Your task to perform on an android device: check the backup settings in the google photos Image 0: 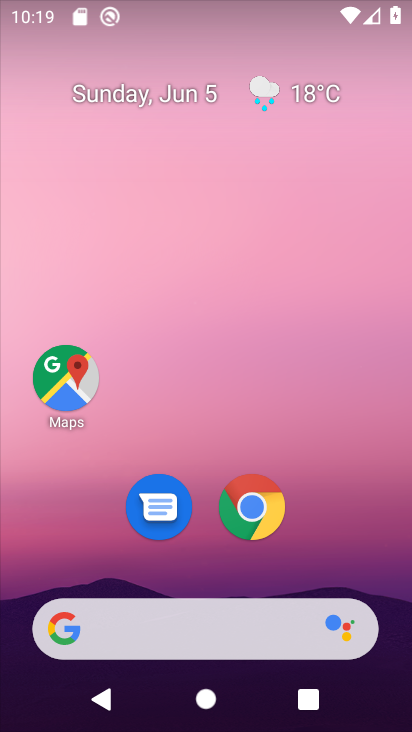
Step 0: drag from (204, 564) to (267, 31)
Your task to perform on an android device: check the backup settings in the google photos Image 1: 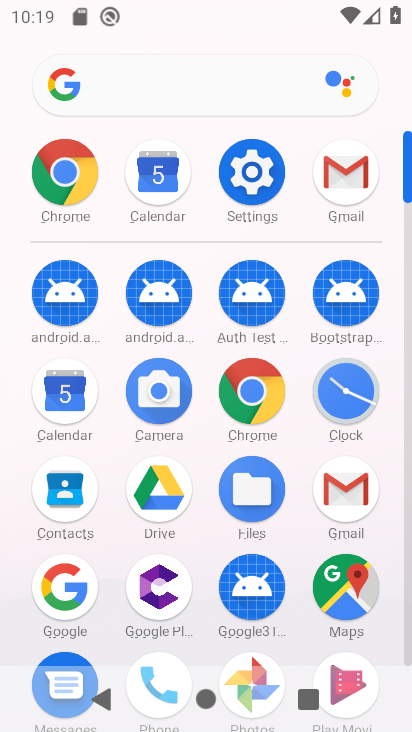
Step 1: drag from (227, 634) to (263, 395)
Your task to perform on an android device: check the backup settings in the google photos Image 2: 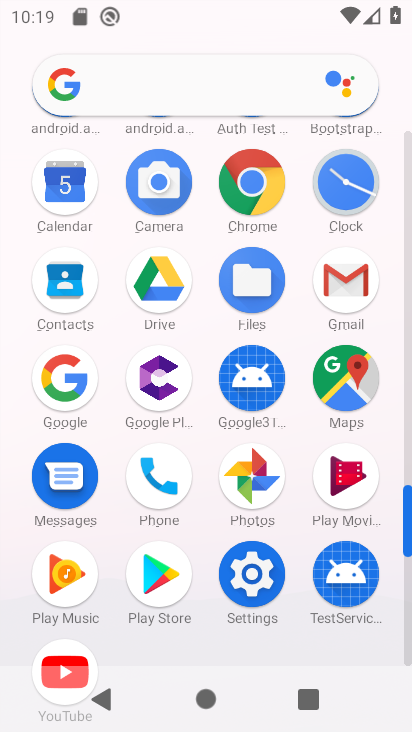
Step 2: click (258, 487)
Your task to perform on an android device: check the backup settings in the google photos Image 3: 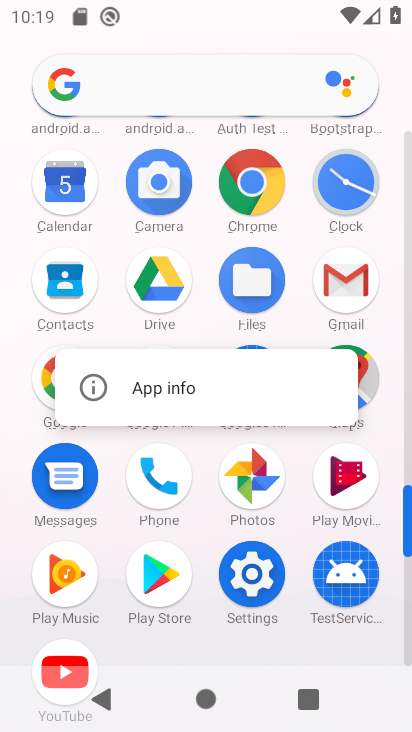
Step 3: click (258, 486)
Your task to perform on an android device: check the backup settings in the google photos Image 4: 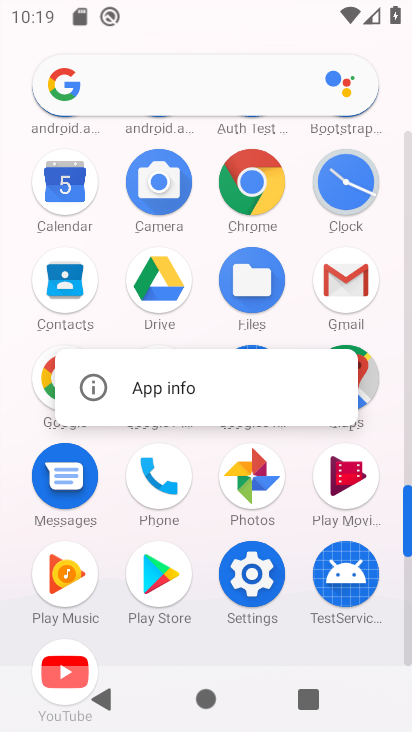
Step 4: click (259, 485)
Your task to perform on an android device: check the backup settings in the google photos Image 5: 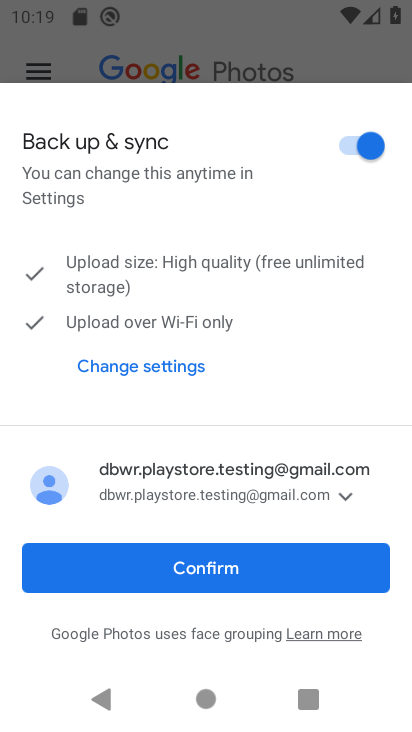
Step 5: click (214, 571)
Your task to perform on an android device: check the backup settings in the google photos Image 6: 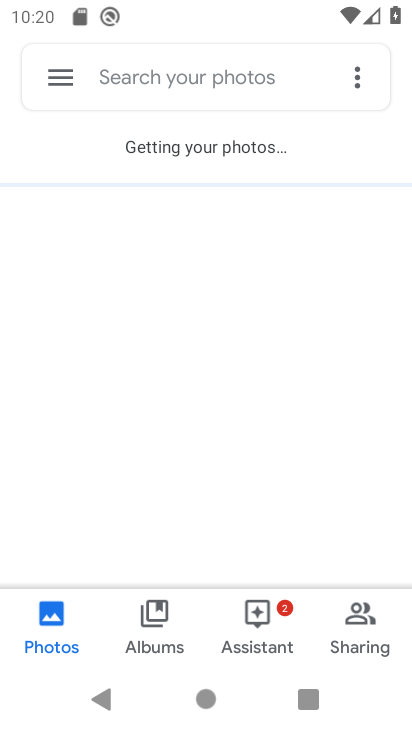
Step 6: click (57, 73)
Your task to perform on an android device: check the backup settings in the google photos Image 7: 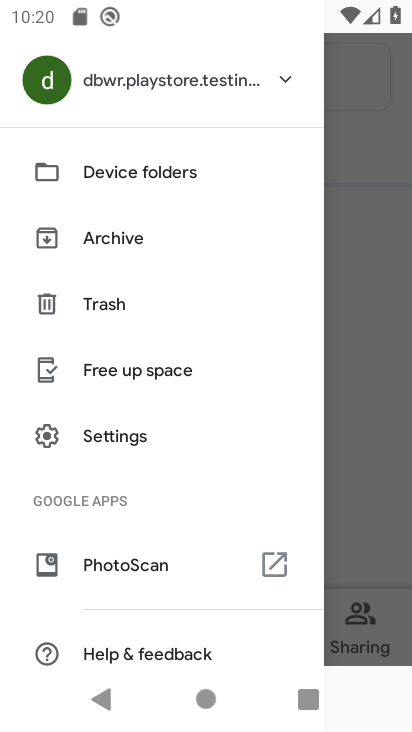
Step 7: click (120, 434)
Your task to perform on an android device: check the backup settings in the google photos Image 8: 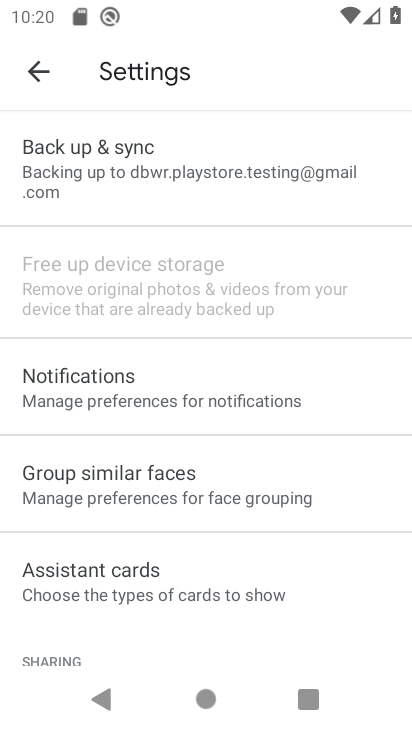
Step 8: click (138, 155)
Your task to perform on an android device: check the backup settings in the google photos Image 9: 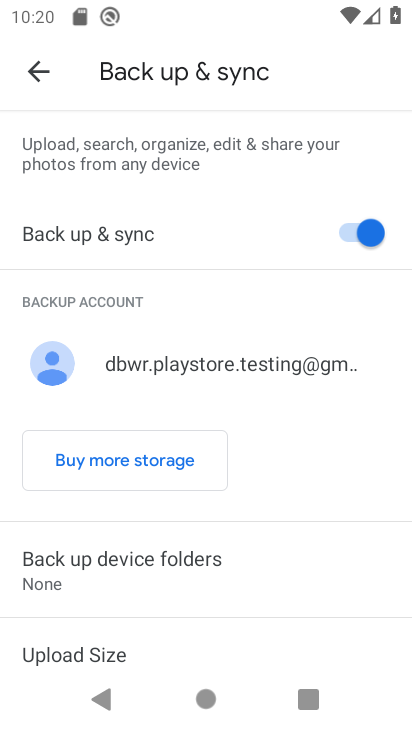
Step 9: task complete